Your task to perform on an android device: open app "Pinterest" (install if not already installed) and go to login screen Image 0: 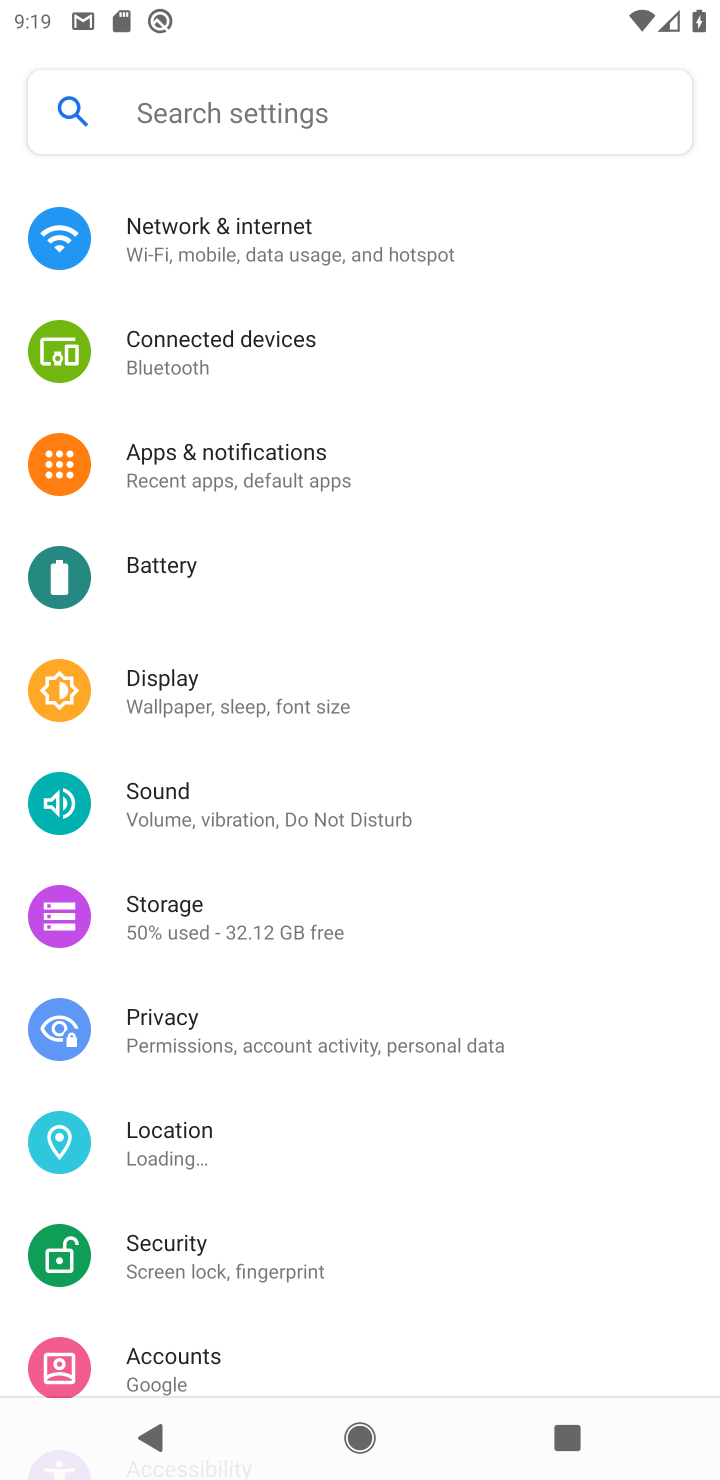
Step 0: press home button
Your task to perform on an android device: open app "Pinterest" (install if not already installed) and go to login screen Image 1: 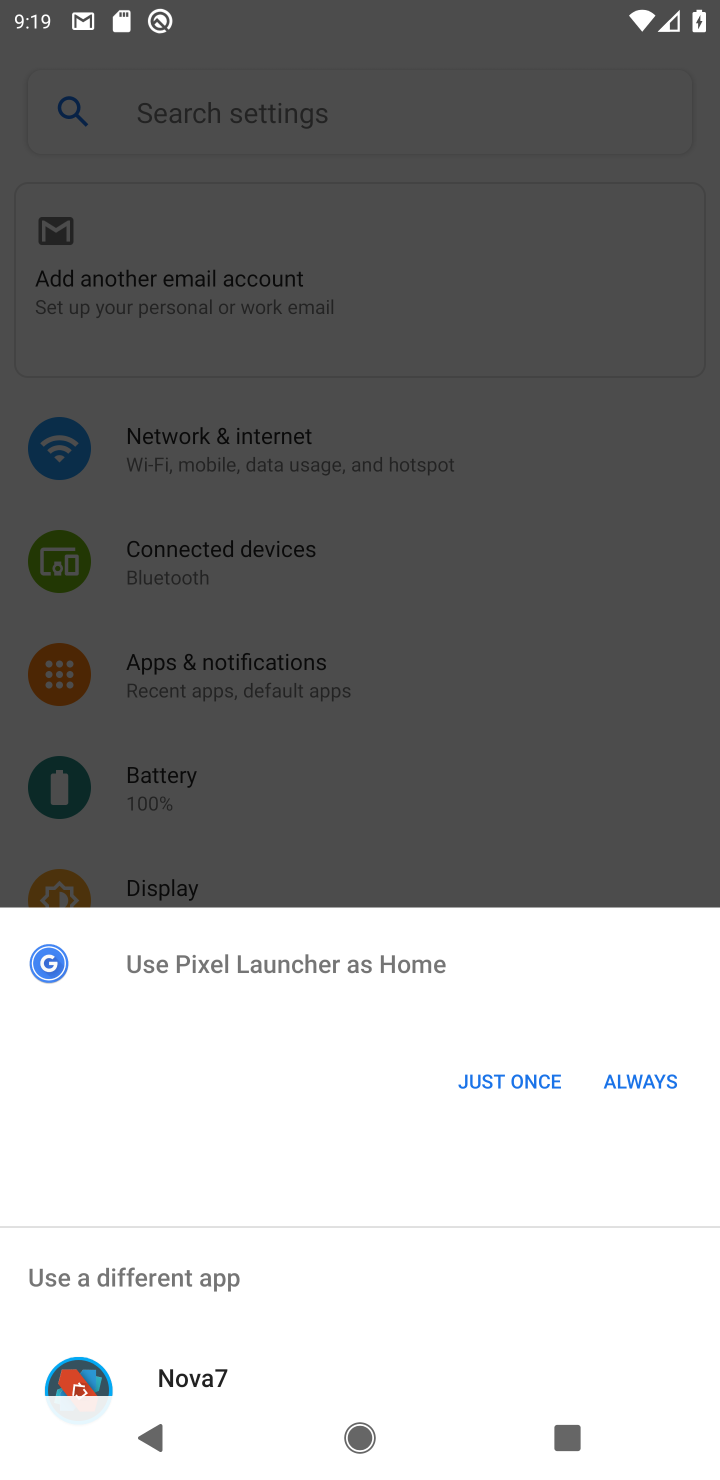
Step 1: press back button
Your task to perform on an android device: open app "Pinterest" (install if not already installed) and go to login screen Image 2: 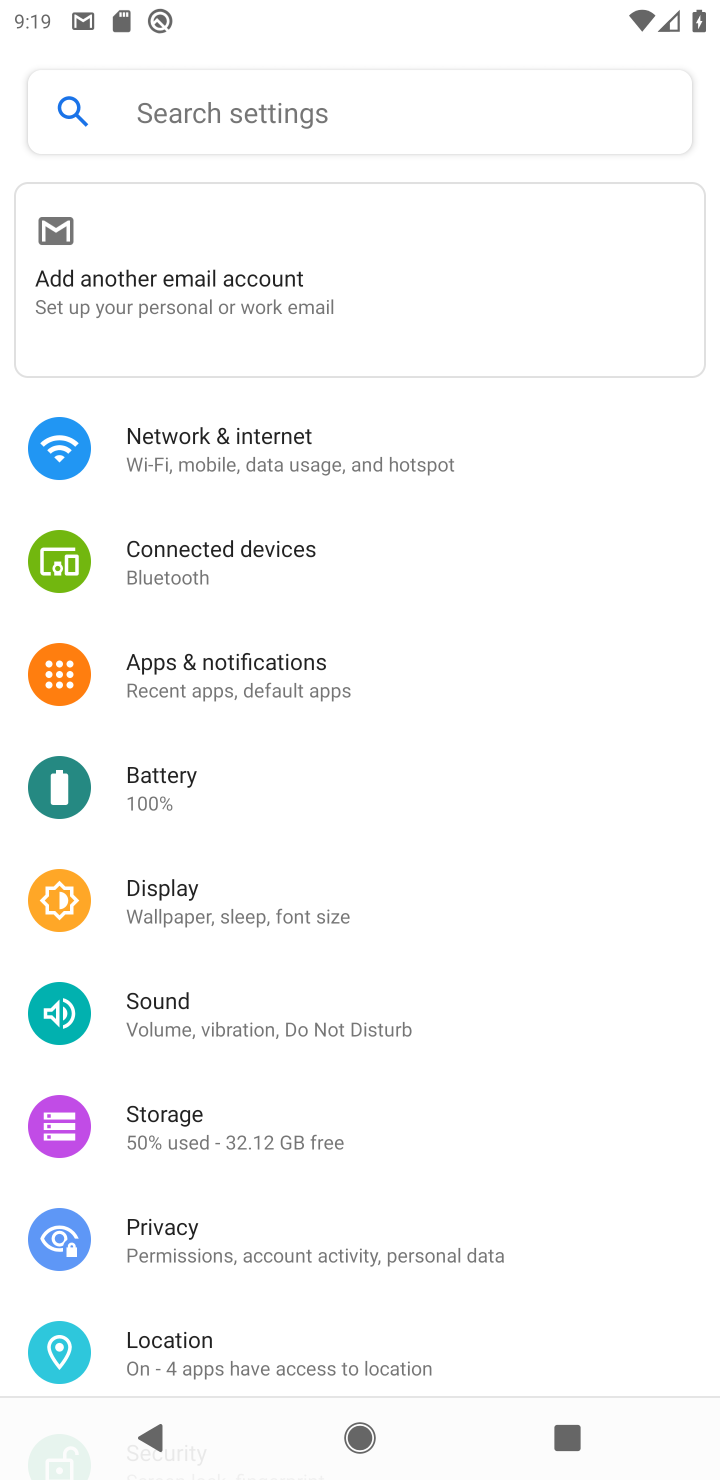
Step 2: press back button
Your task to perform on an android device: open app "Pinterest" (install if not already installed) and go to login screen Image 3: 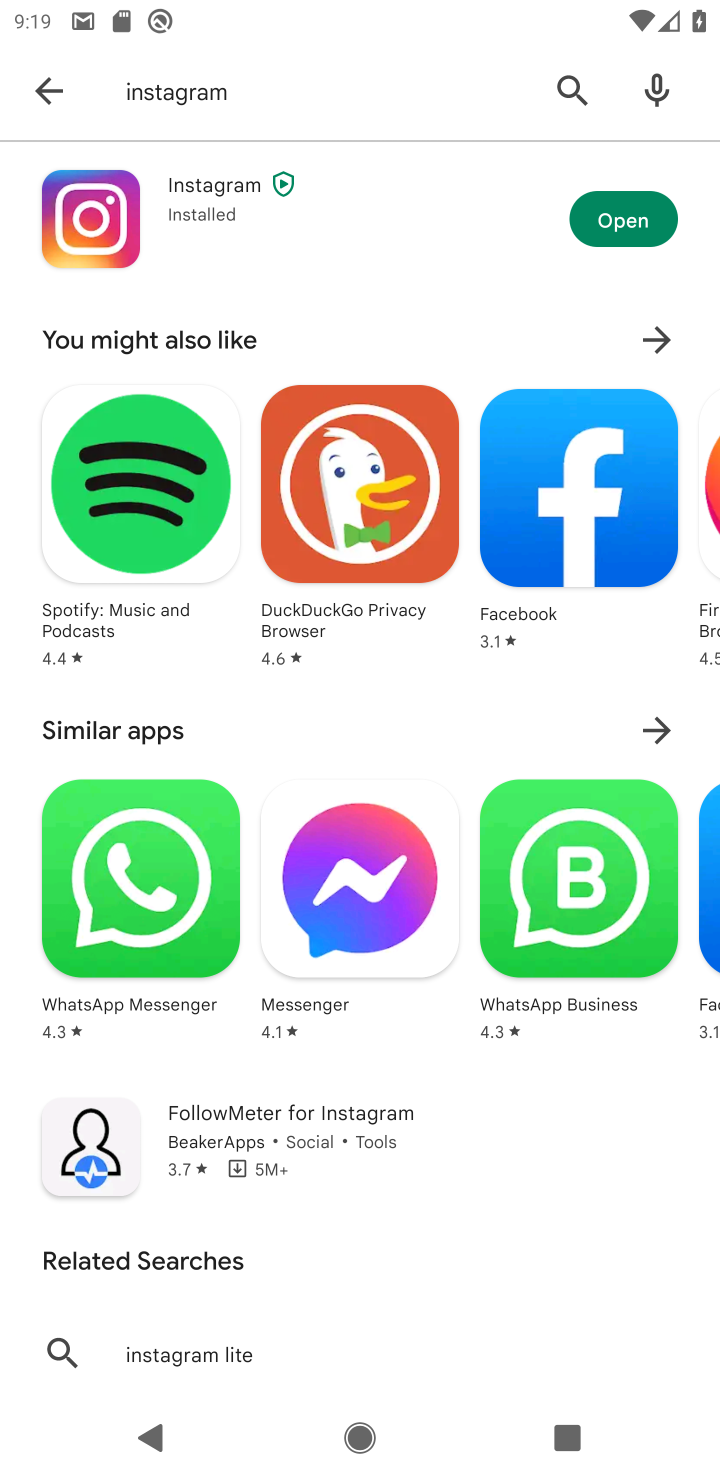
Step 3: click (571, 86)
Your task to perform on an android device: open app "Pinterest" (install if not already installed) and go to login screen Image 4: 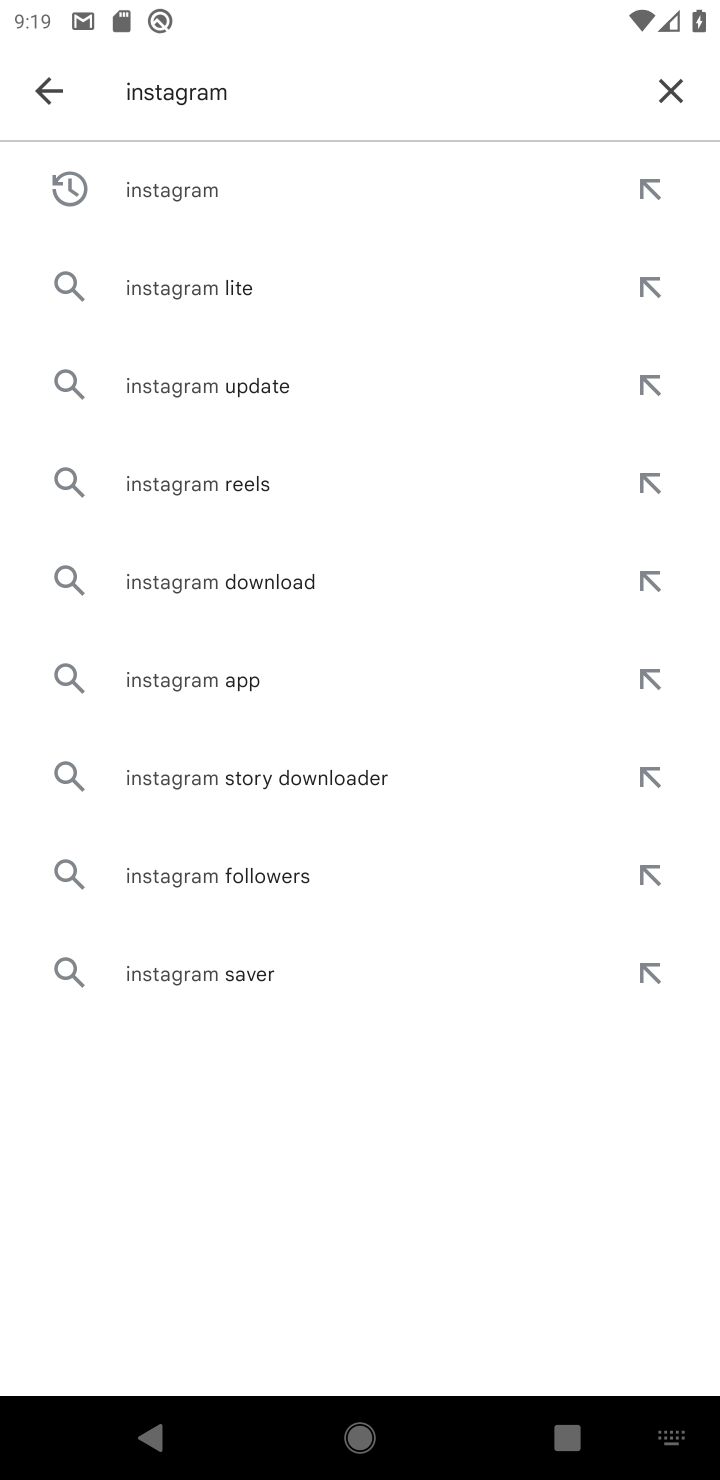
Step 4: click (668, 77)
Your task to perform on an android device: open app "Pinterest" (install if not already installed) and go to login screen Image 5: 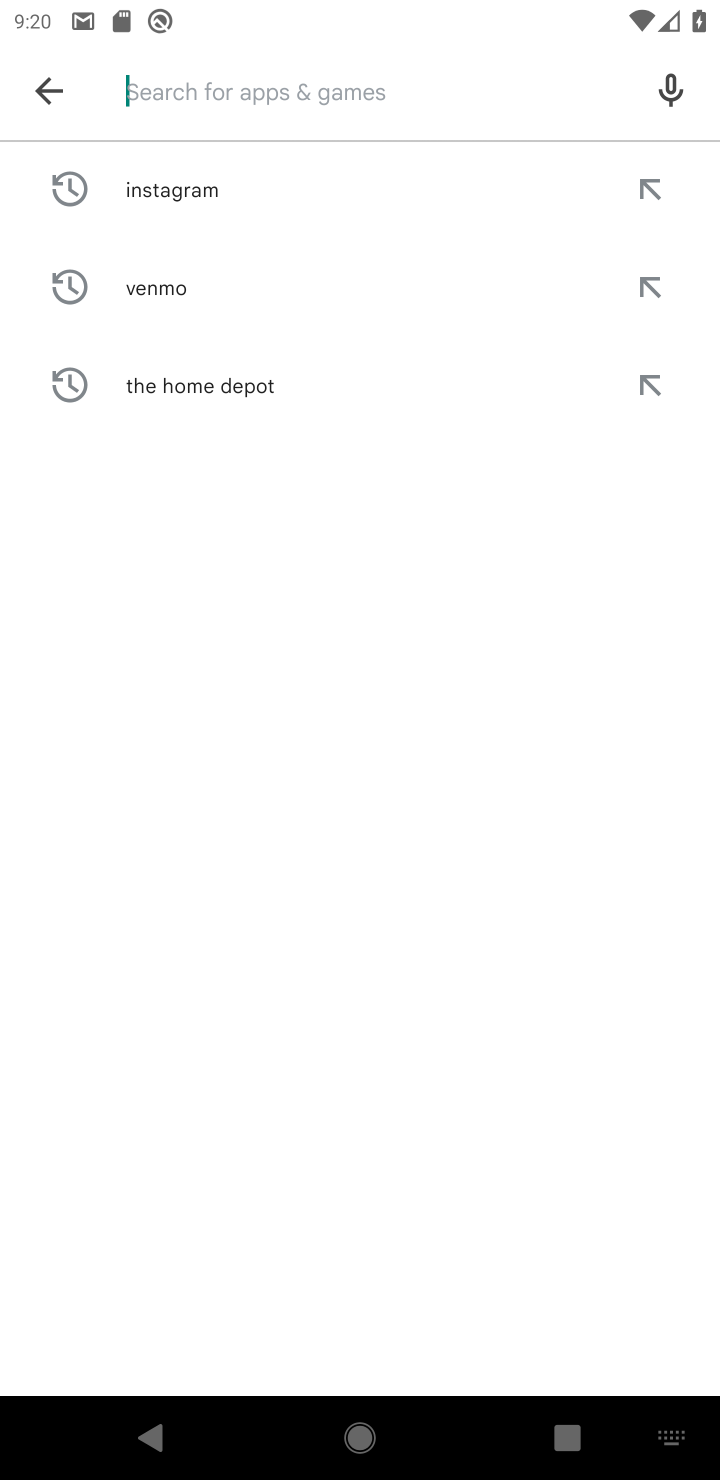
Step 5: click (236, 97)
Your task to perform on an android device: open app "Pinterest" (install if not already installed) and go to login screen Image 6: 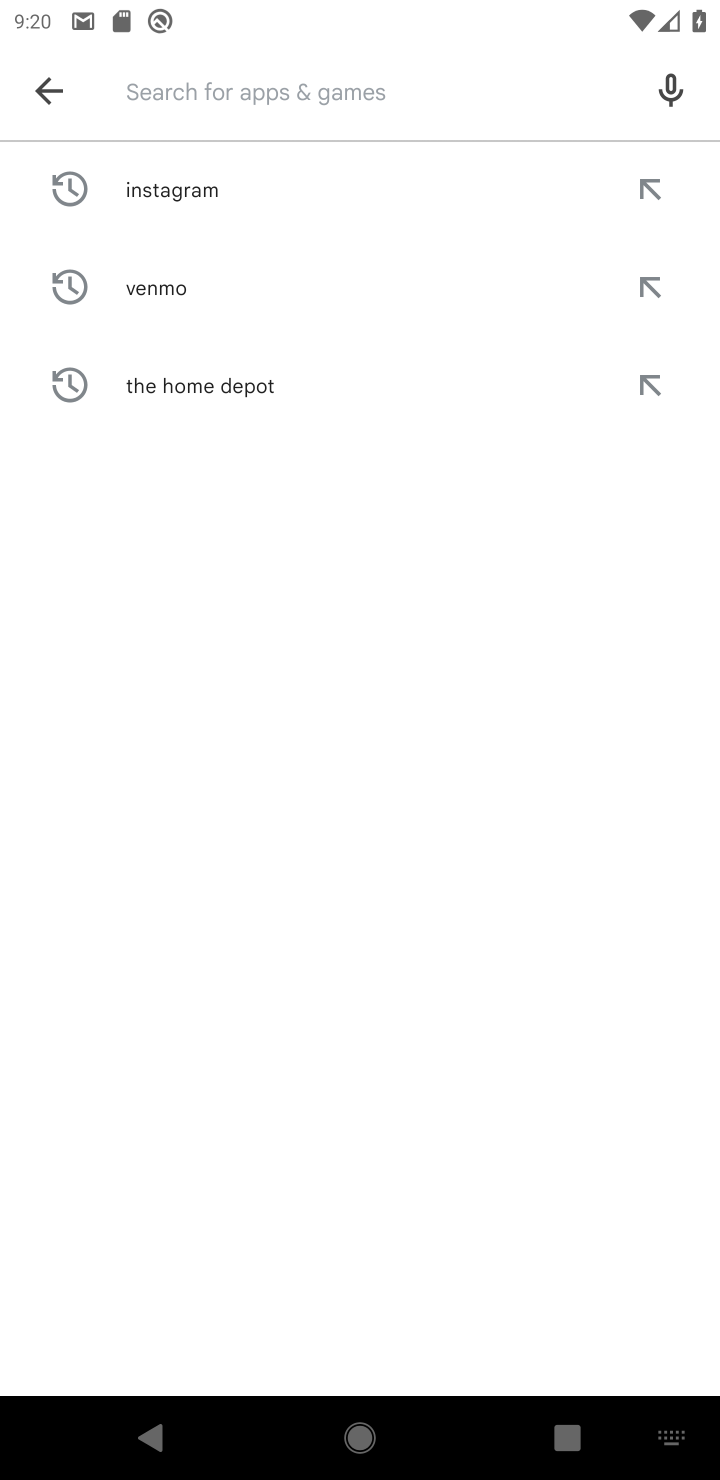
Step 6: type "pinterest "
Your task to perform on an android device: open app "Pinterest" (install if not already installed) and go to login screen Image 7: 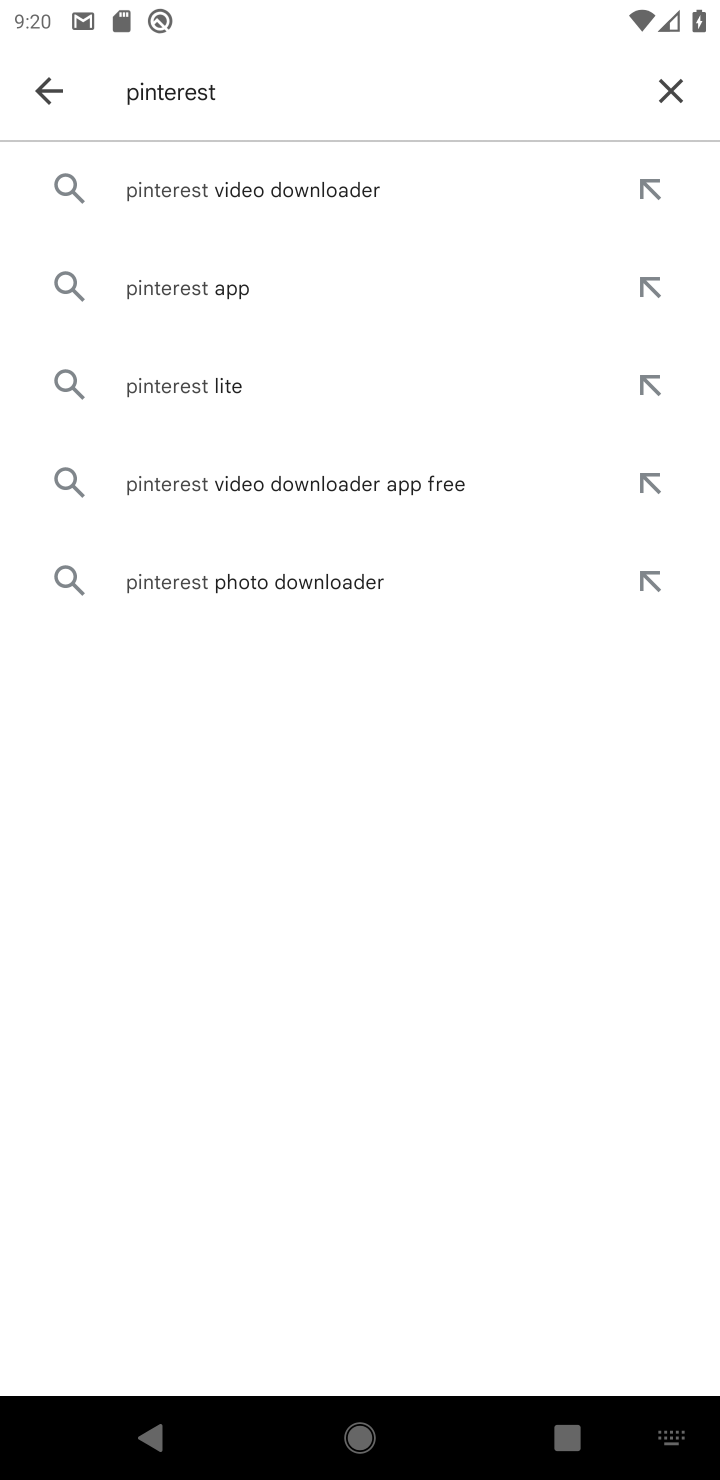
Step 7: click (245, 279)
Your task to perform on an android device: open app "Pinterest" (install if not already installed) and go to login screen Image 8: 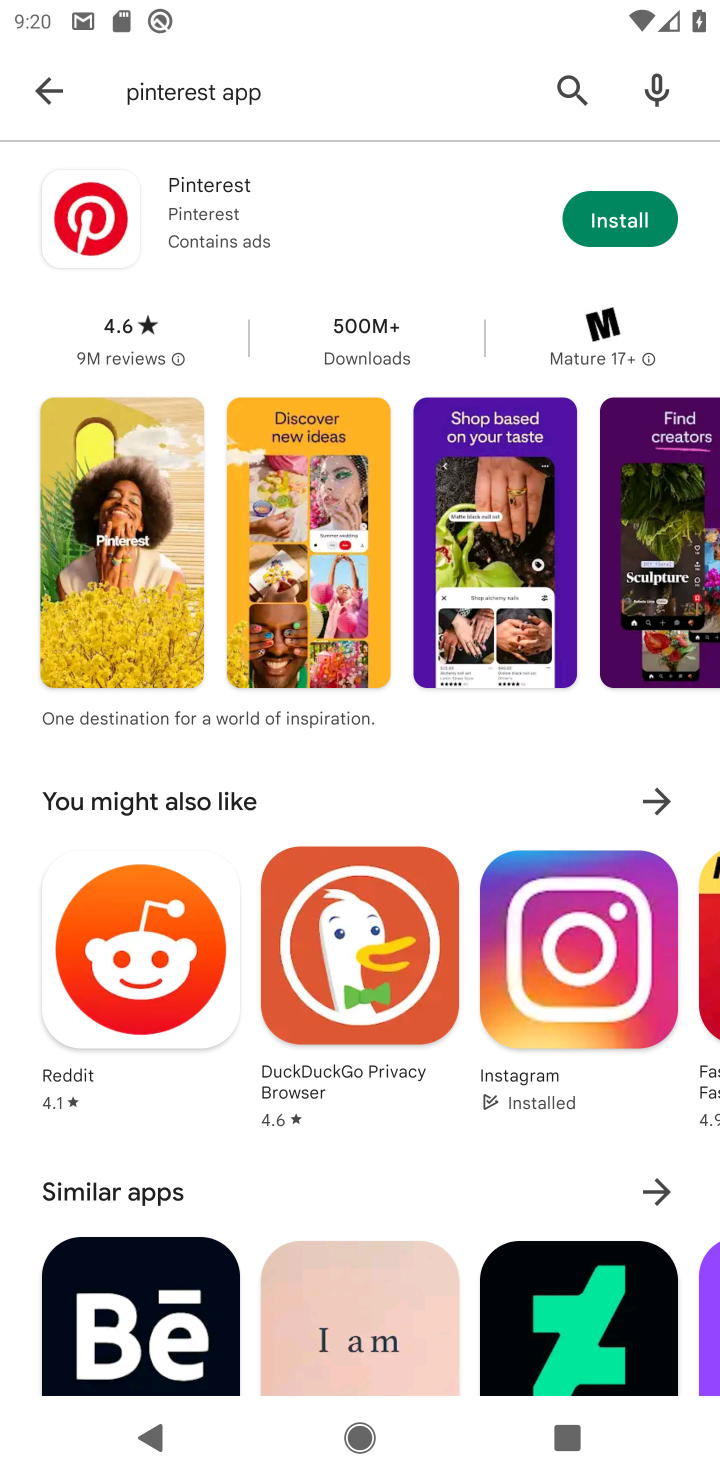
Step 8: click (634, 214)
Your task to perform on an android device: open app "Pinterest" (install if not already installed) and go to login screen Image 9: 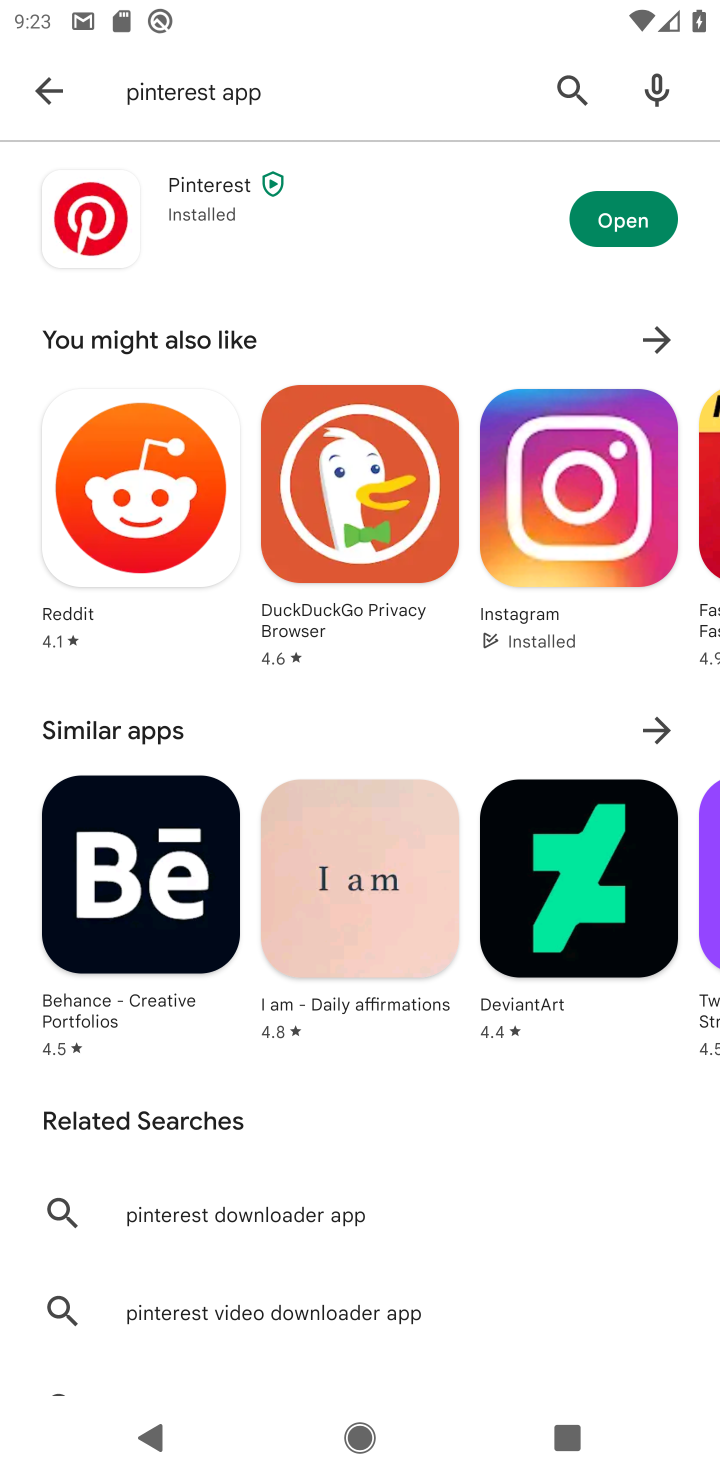
Step 9: click (638, 216)
Your task to perform on an android device: open app "Pinterest" (install if not already installed) and go to login screen Image 10: 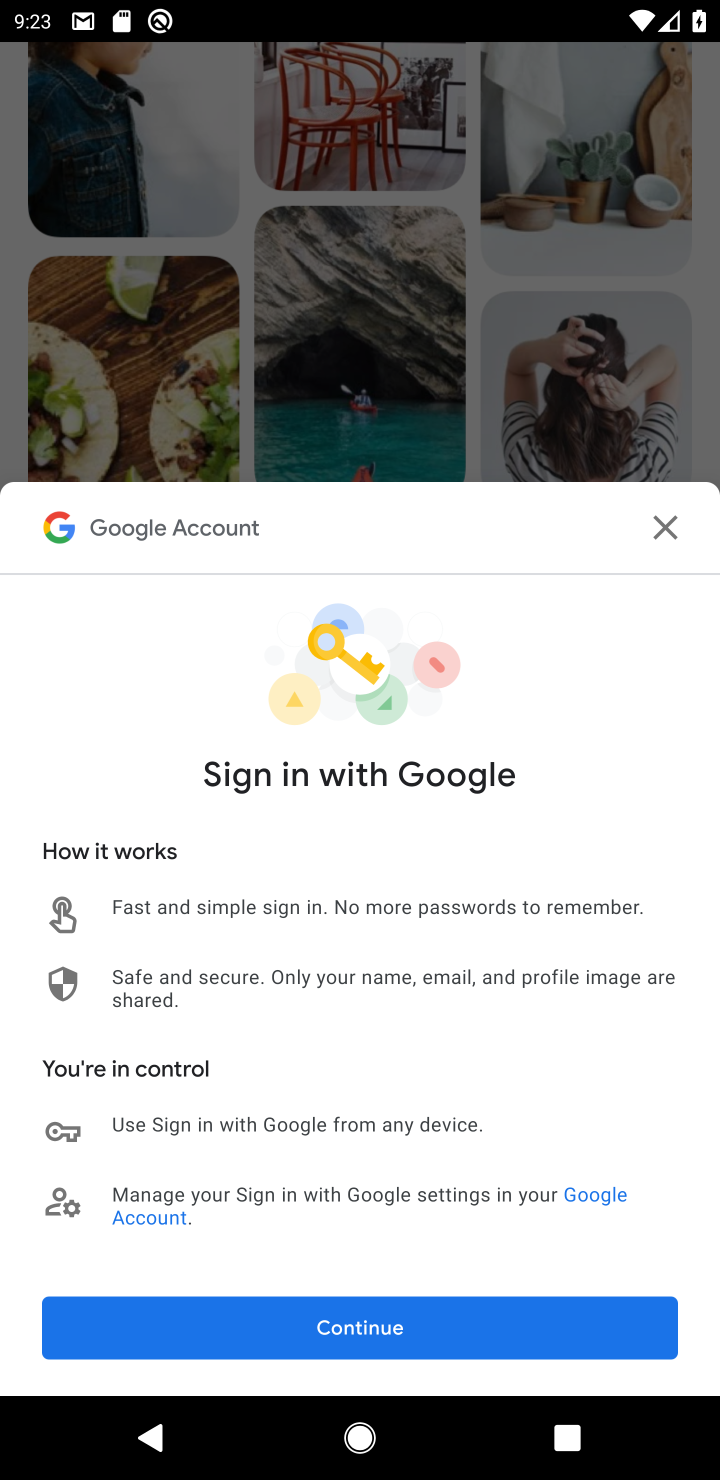
Step 10: task complete